Your task to perform on an android device: Open Chrome and go to settings Image 0: 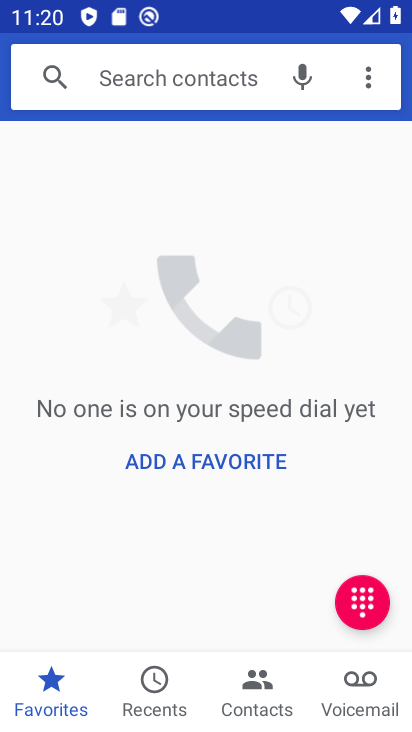
Step 0: press home button
Your task to perform on an android device: Open Chrome and go to settings Image 1: 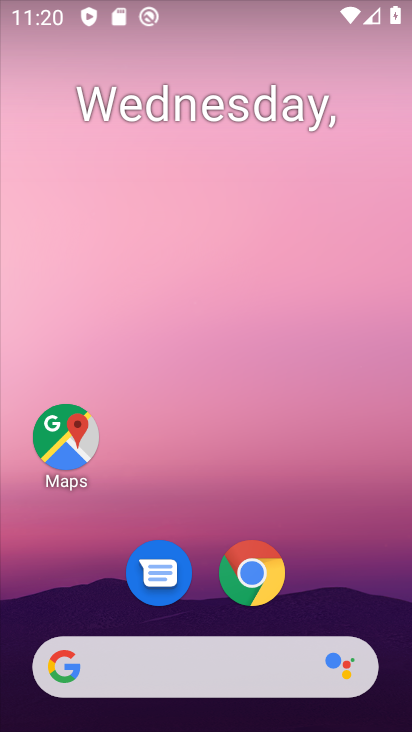
Step 1: click (254, 560)
Your task to perform on an android device: Open Chrome and go to settings Image 2: 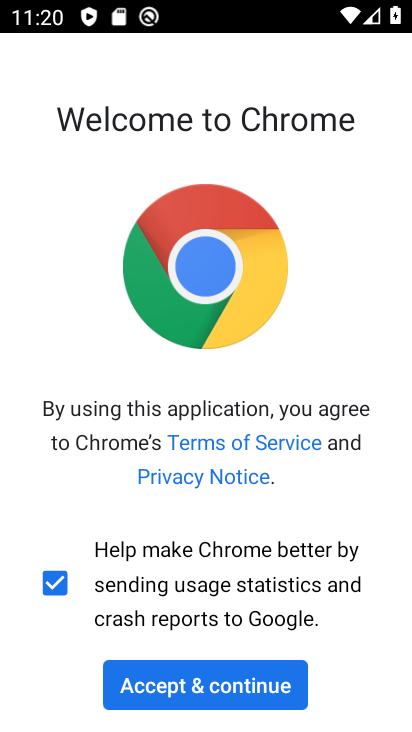
Step 2: click (266, 683)
Your task to perform on an android device: Open Chrome and go to settings Image 3: 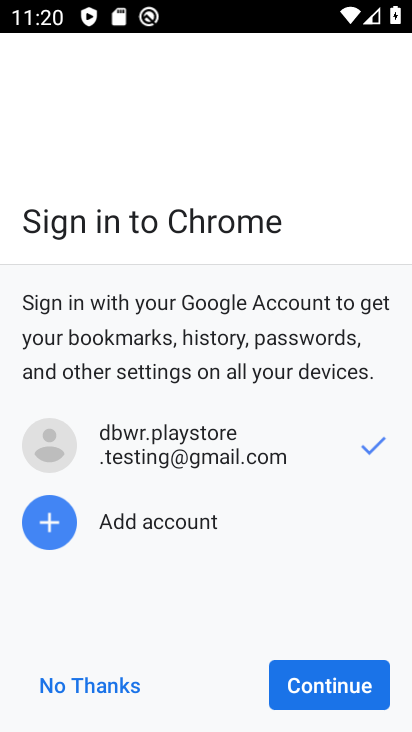
Step 3: click (299, 687)
Your task to perform on an android device: Open Chrome and go to settings Image 4: 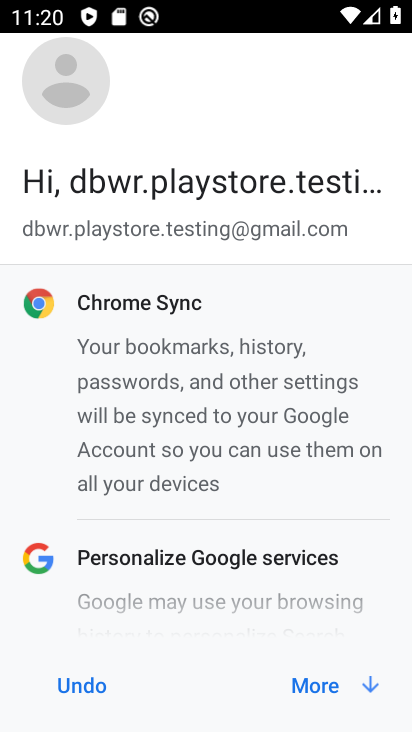
Step 4: click (299, 687)
Your task to perform on an android device: Open Chrome and go to settings Image 5: 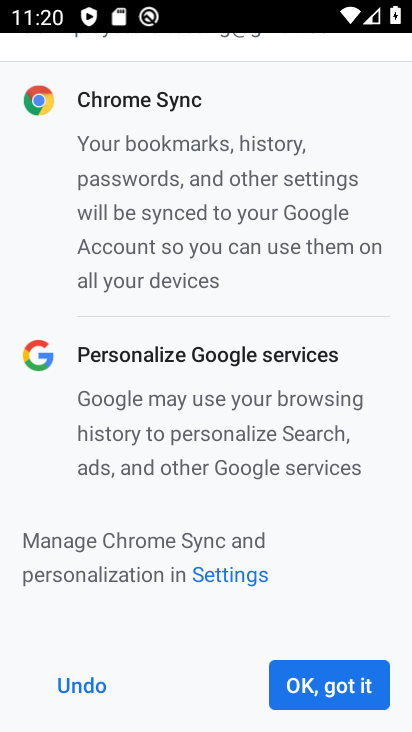
Step 5: click (299, 687)
Your task to perform on an android device: Open Chrome and go to settings Image 6: 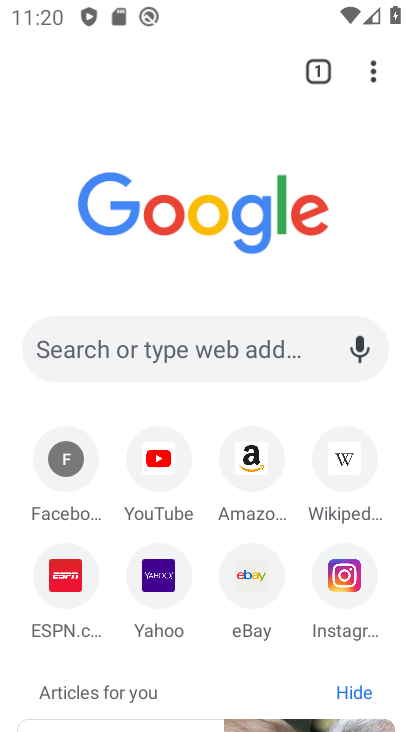
Step 6: click (374, 66)
Your task to perform on an android device: Open Chrome and go to settings Image 7: 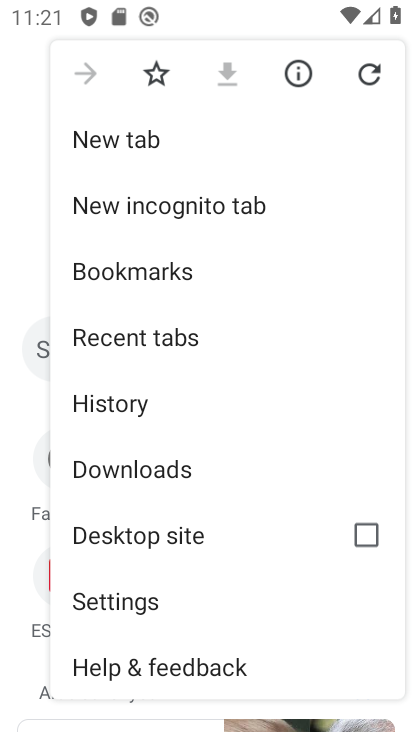
Step 7: drag from (272, 406) to (252, 118)
Your task to perform on an android device: Open Chrome and go to settings Image 8: 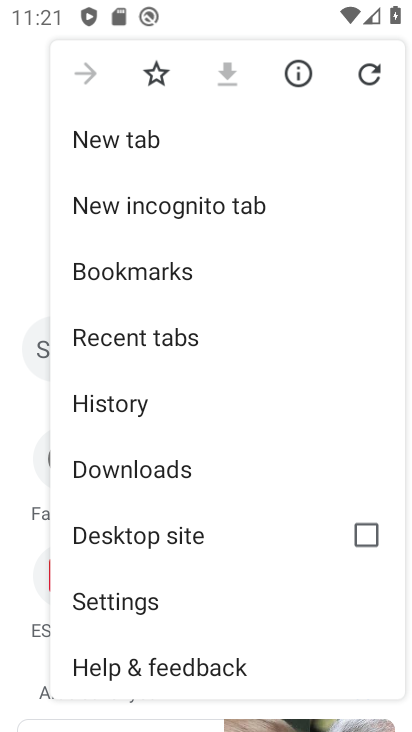
Step 8: click (156, 600)
Your task to perform on an android device: Open Chrome and go to settings Image 9: 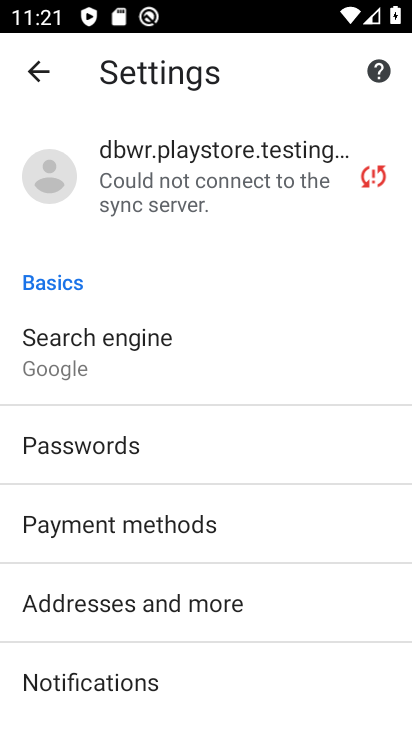
Step 9: task complete